Your task to perform on an android device: delete location history Image 0: 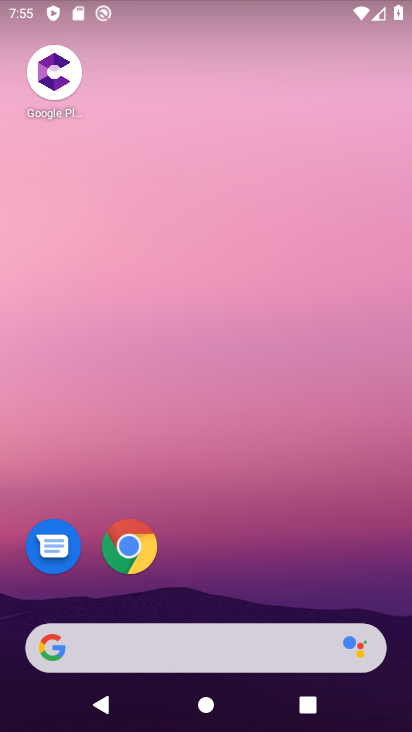
Step 0: drag from (211, 566) to (240, 62)
Your task to perform on an android device: delete location history Image 1: 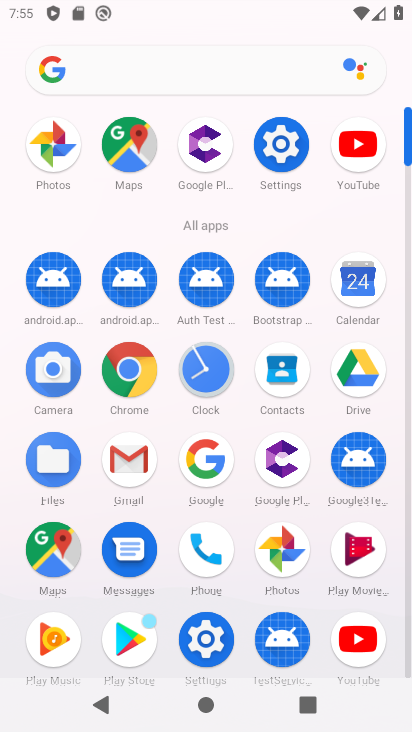
Step 1: click (282, 144)
Your task to perform on an android device: delete location history Image 2: 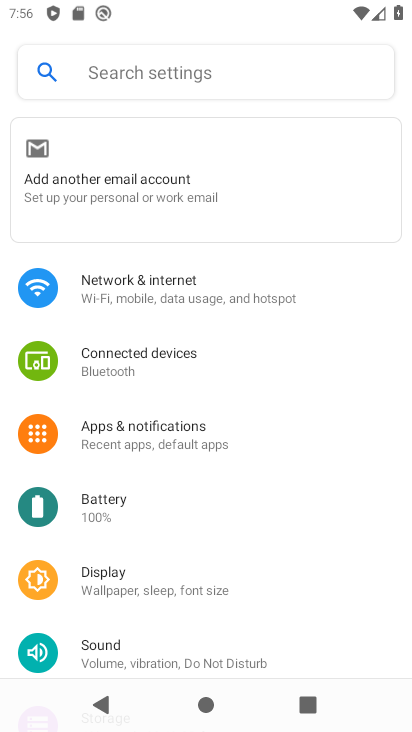
Step 2: drag from (192, 556) to (272, 139)
Your task to perform on an android device: delete location history Image 3: 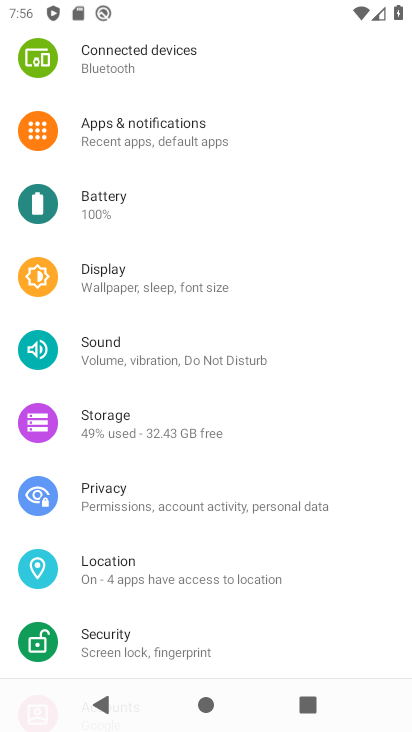
Step 3: click (137, 568)
Your task to perform on an android device: delete location history Image 4: 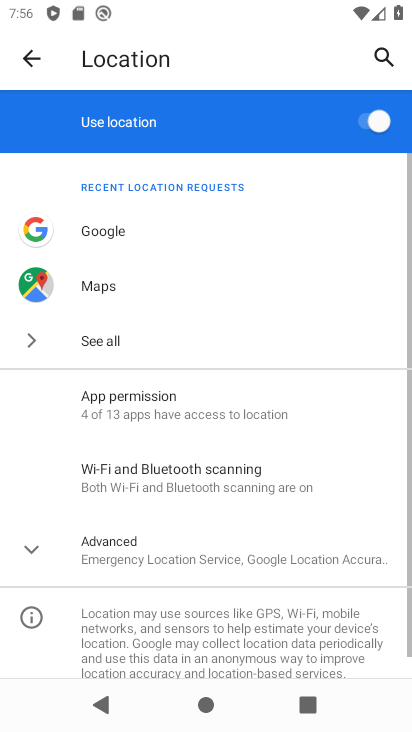
Step 4: click (142, 526)
Your task to perform on an android device: delete location history Image 5: 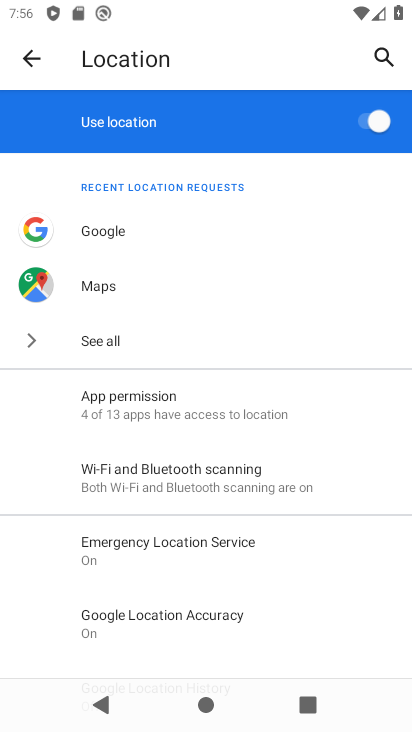
Step 5: drag from (212, 621) to (242, 123)
Your task to perform on an android device: delete location history Image 6: 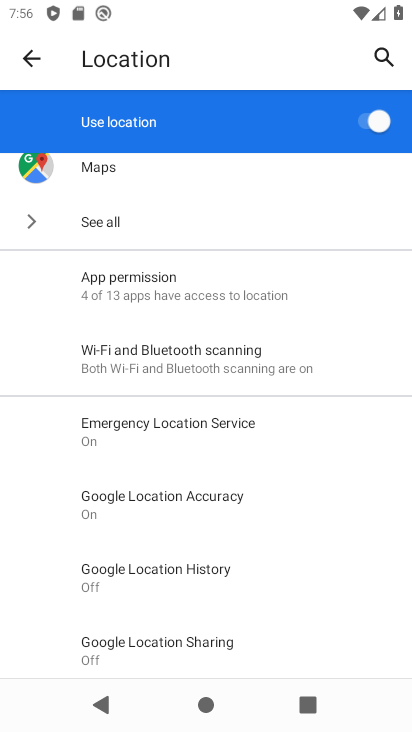
Step 6: click (224, 593)
Your task to perform on an android device: delete location history Image 7: 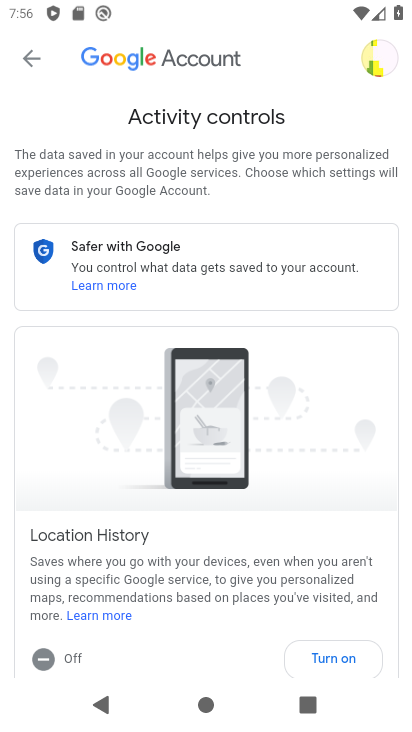
Step 7: drag from (262, 523) to (313, 246)
Your task to perform on an android device: delete location history Image 8: 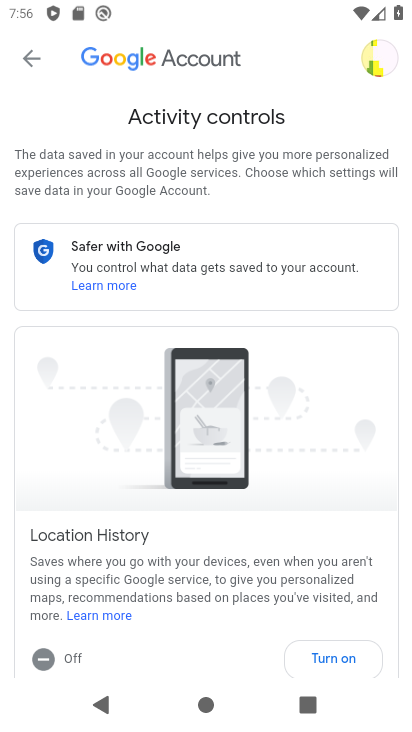
Step 8: click (352, 656)
Your task to perform on an android device: delete location history Image 9: 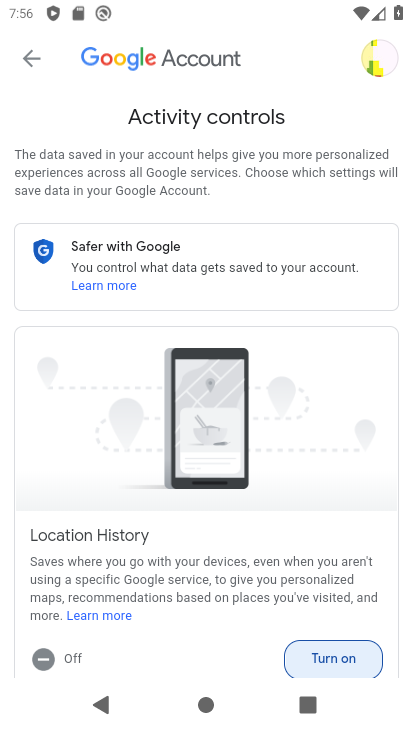
Step 9: drag from (236, 569) to (402, 186)
Your task to perform on an android device: delete location history Image 10: 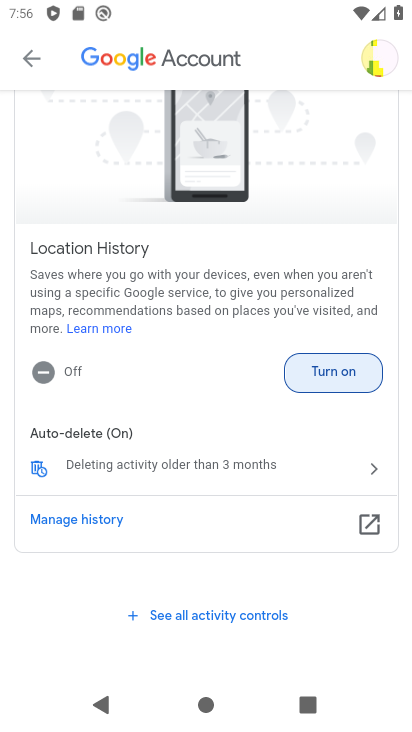
Step 10: click (33, 458)
Your task to perform on an android device: delete location history Image 11: 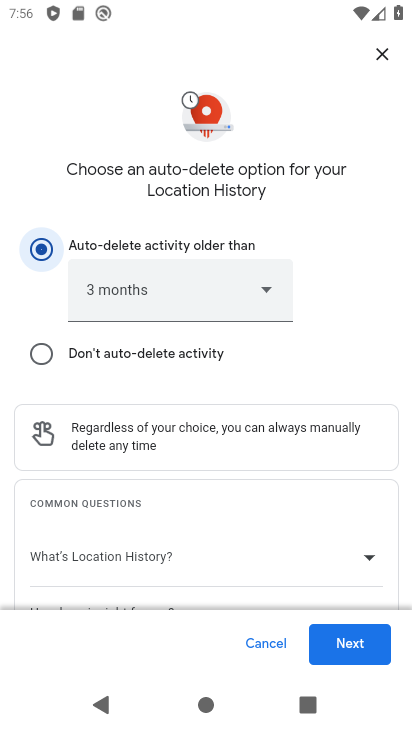
Step 11: drag from (225, 531) to (270, 220)
Your task to perform on an android device: delete location history Image 12: 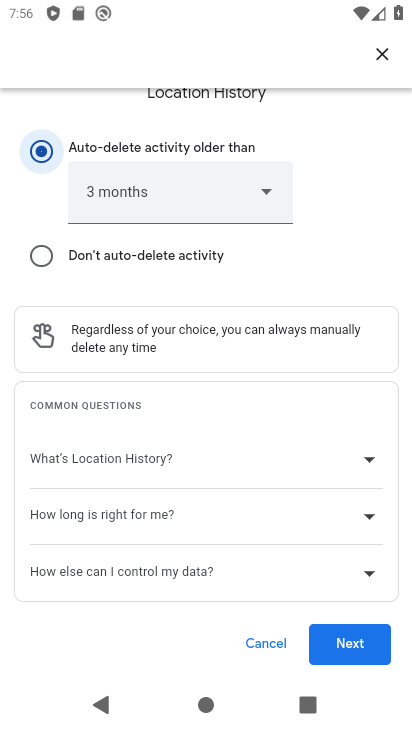
Step 12: click (343, 624)
Your task to perform on an android device: delete location history Image 13: 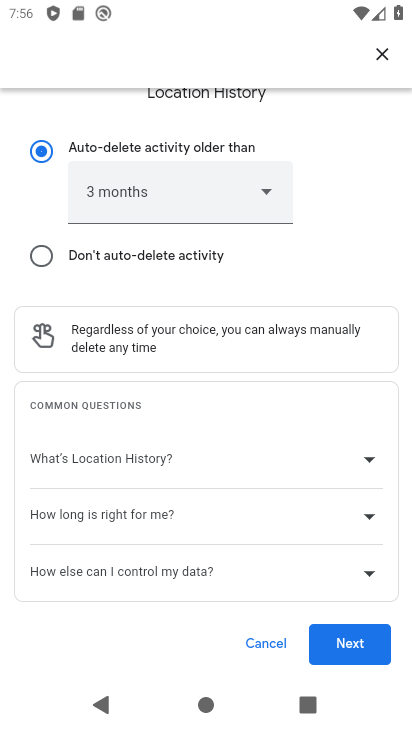
Step 13: click (343, 631)
Your task to perform on an android device: delete location history Image 14: 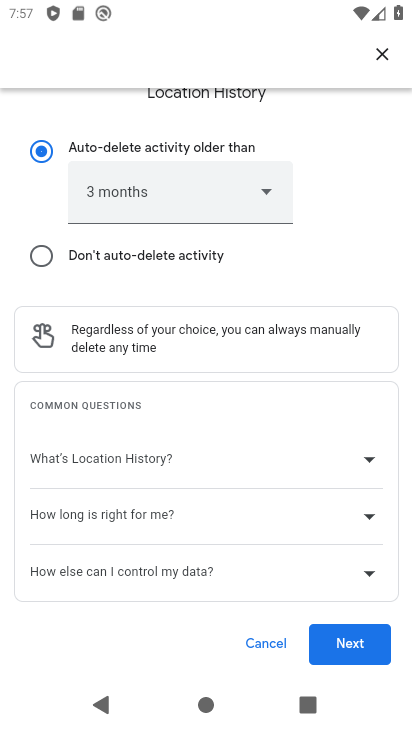
Step 14: click (372, 652)
Your task to perform on an android device: delete location history Image 15: 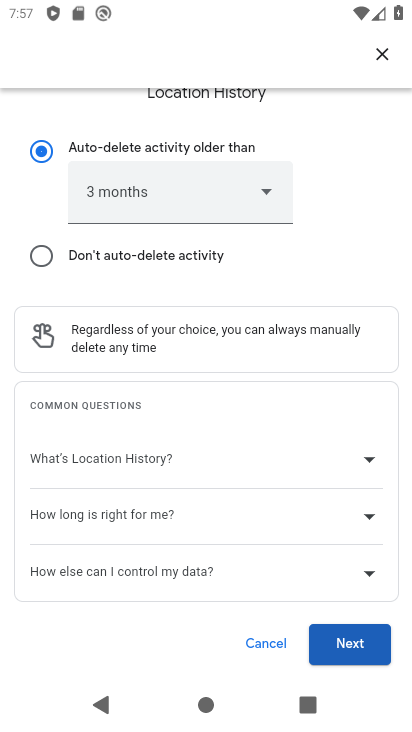
Step 15: click (370, 639)
Your task to perform on an android device: delete location history Image 16: 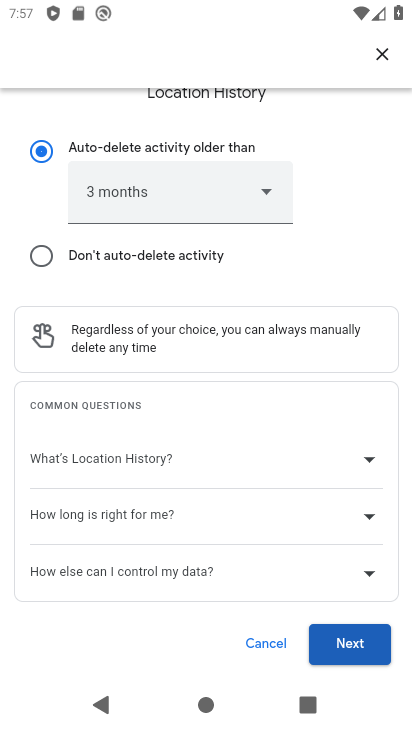
Step 16: drag from (328, 609) to (364, 638)
Your task to perform on an android device: delete location history Image 17: 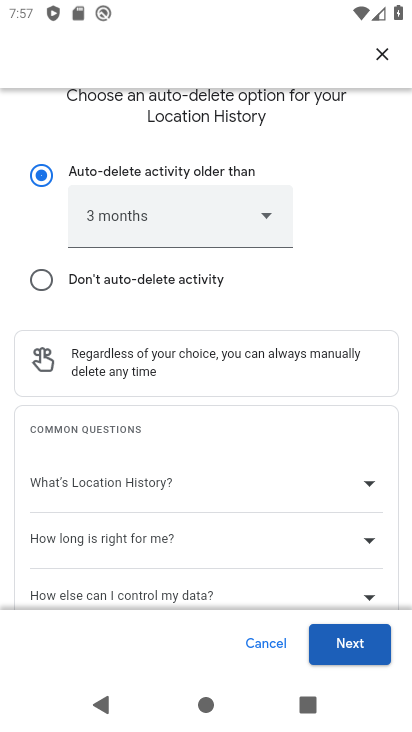
Step 17: click (356, 653)
Your task to perform on an android device: delete location history Image 18: 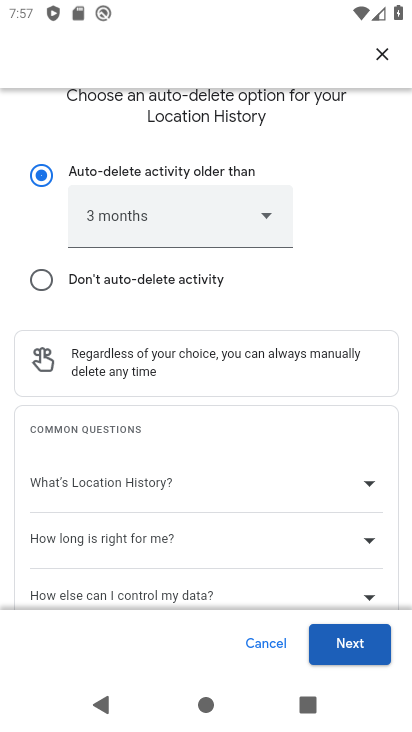
Step 18: click (325, 644)
Your task to perform on an android device: delete location history Image 19: 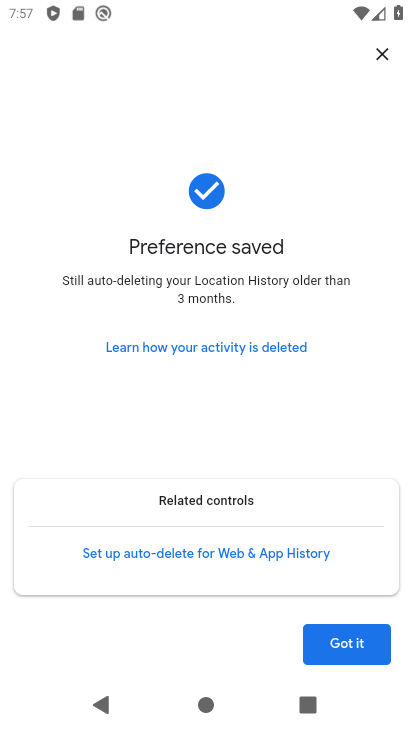
Step 19: click (377, 633)
Your task to perform on an android device: delete location history Image 20: 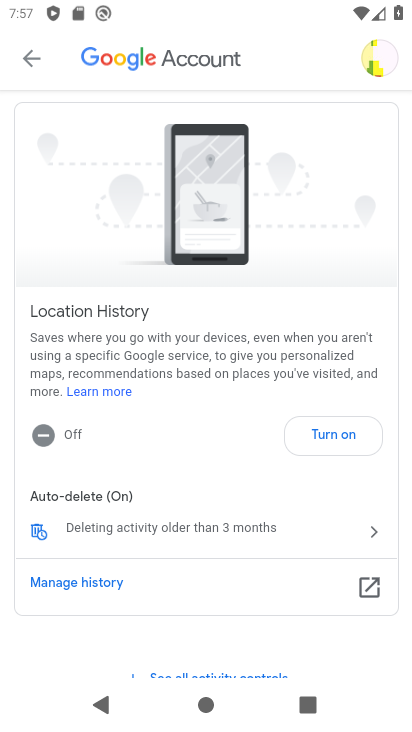
Step 20: task complete